Your task to perform on an android device: toggle improve location accuracy Image 0: 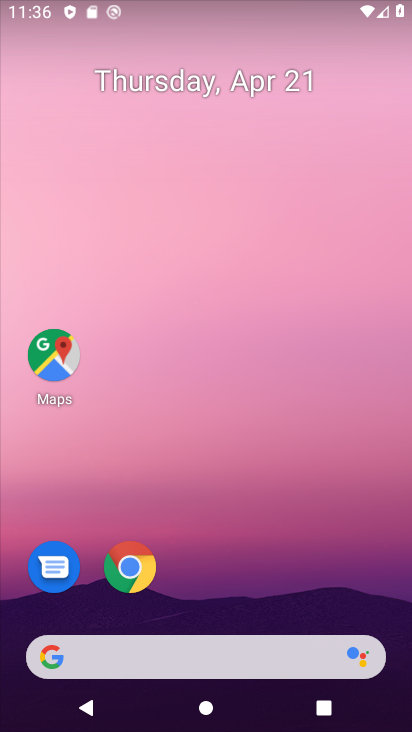
Step 0: drag from (138, 592) to (176, 236)
Your task to perform on an android device: toggle improve location accuracy Image 1: 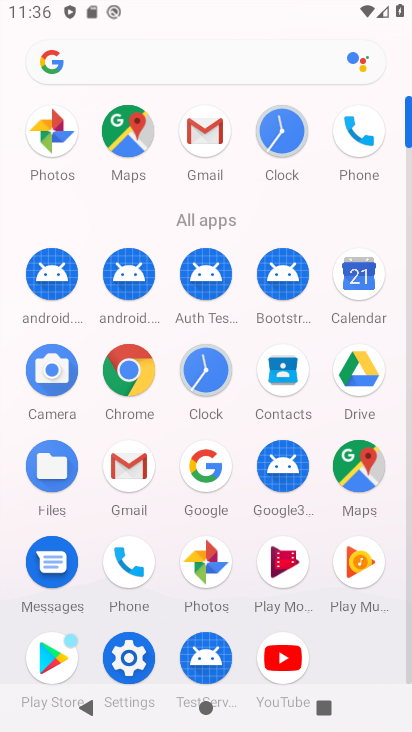
Step 1: click (129, 655)
Your task to perform on an android device: toggle improve location accuracy Image 2: 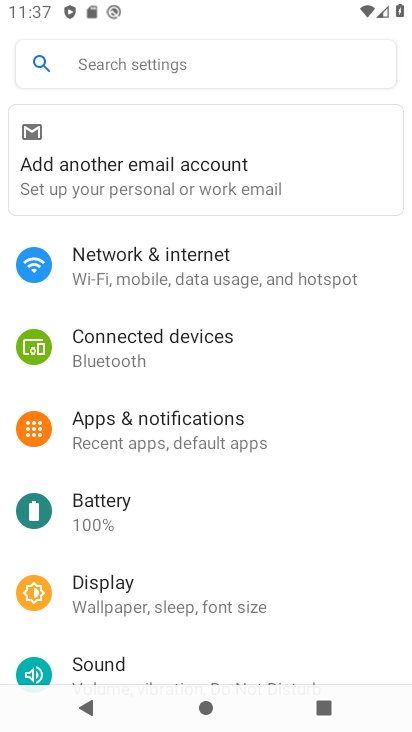
Step 2: drag from (162, 521) to (183, 194)
Your task to perform on an android device: toggle improve location accuracy Image 3: 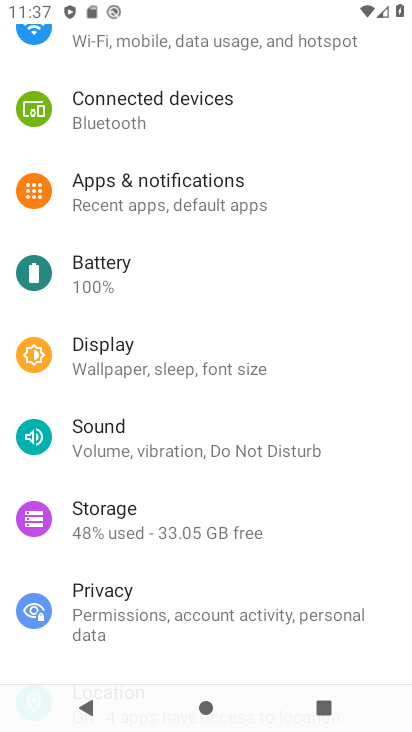
Step 3: drag from (165, 549) to (245, 288)
Your task to perform on an android device: toggle improve location accuracy Image 4: 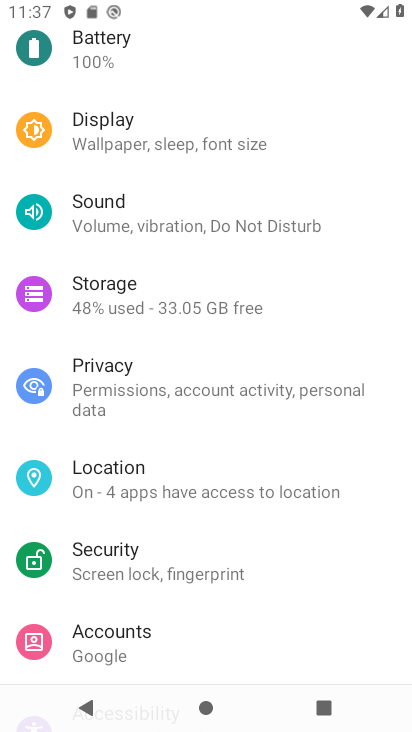
Step 4: click (135, 485)
Your task to perform on an android device: toggle improve location accuracy Image 5: 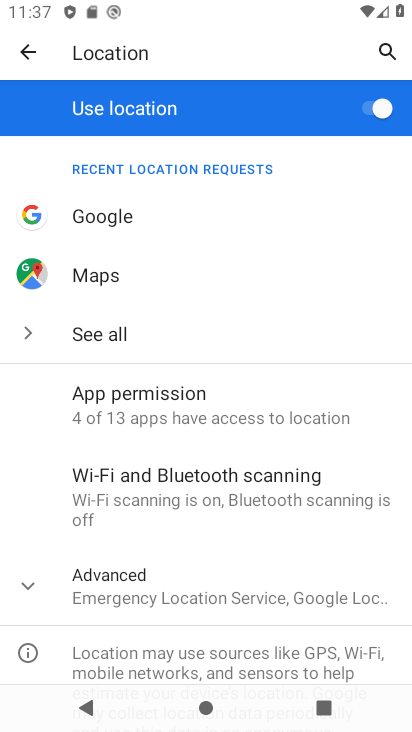
Step 5: click (43, 481)
Your task to perform on an android device: toggle improve location accuracy Image 6: 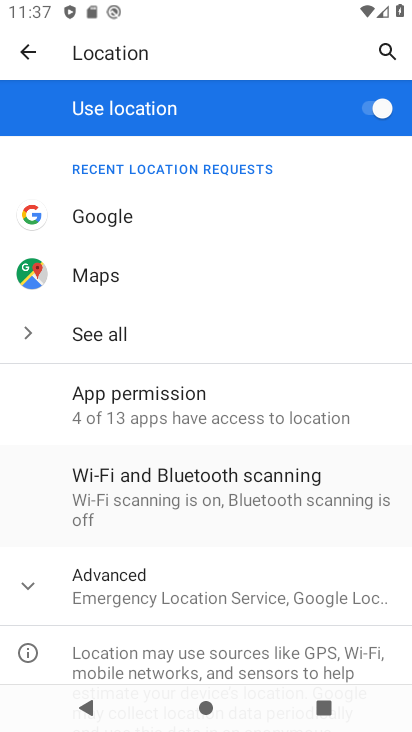
Step 6: drag from (185, 546) to (190, 399)
Your task to perform on an android device: toggle improve location accuracy Image 7: 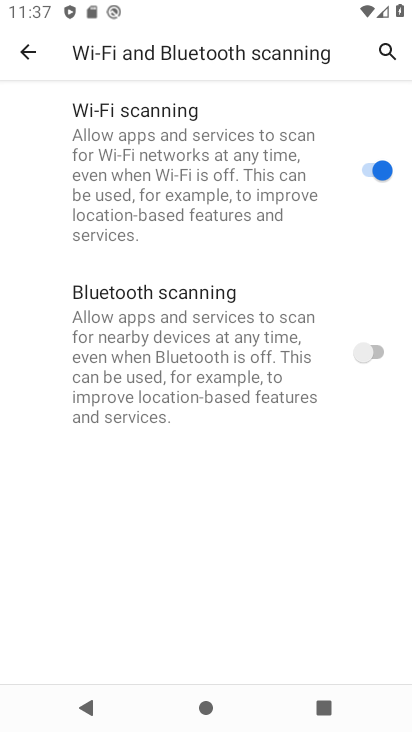
Step 7: click (35, 48)
Your task to perform on an android device: toggle improve location accuracy Image 8: 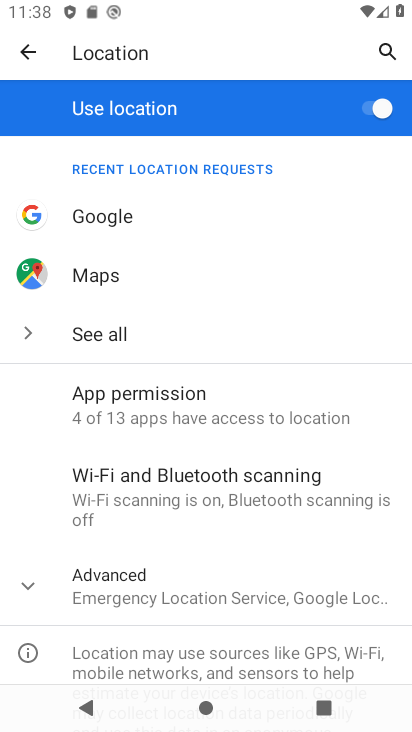
Step 8: drag from (186, 632) to (283, 268)
Your task to perform on an android device: toggle improve location accuracy Image 9: 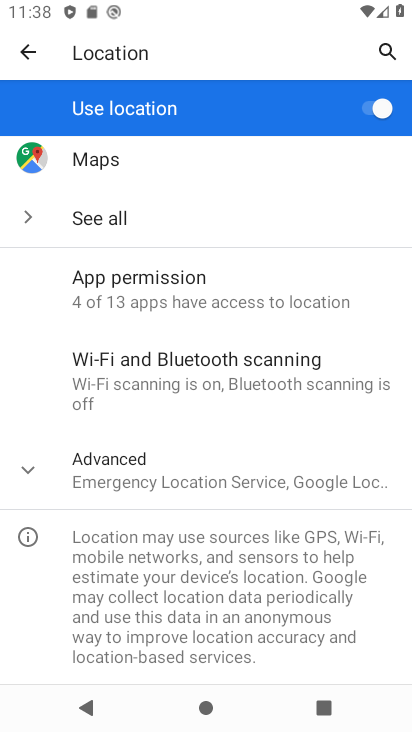
Step 9: click (27, 469)
Your task to perform on an android device: toggle improve location accuracy Image 10: 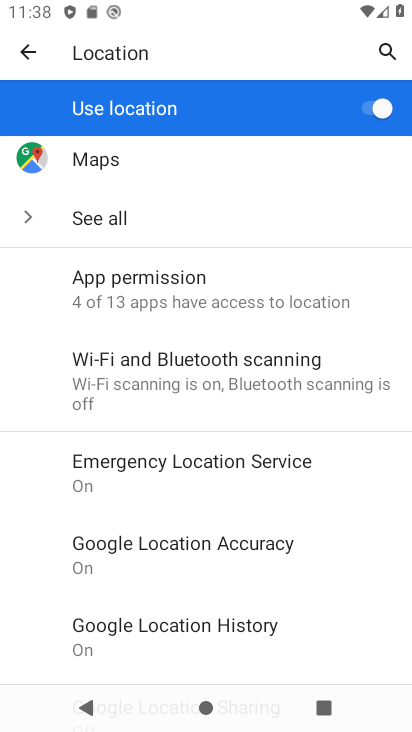
Step 10: drag from (263, 577) to (297, 364)
Your task to perform on an android device: toggle improve location accuracy Image 11: 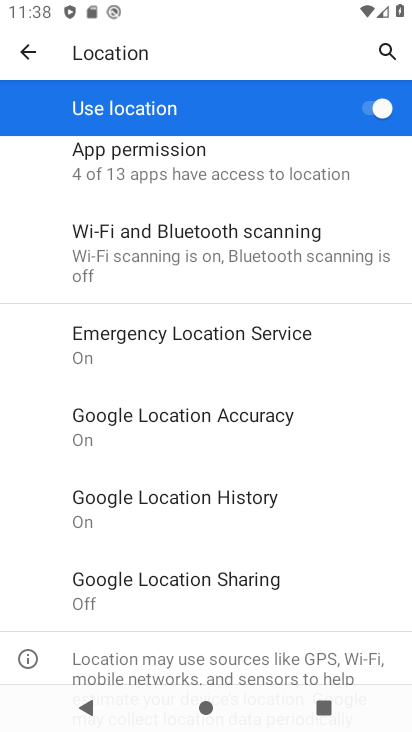
Step 11: click (235, 419)
Your task to perform on an android device: toggle improve location accuracy Image 12: 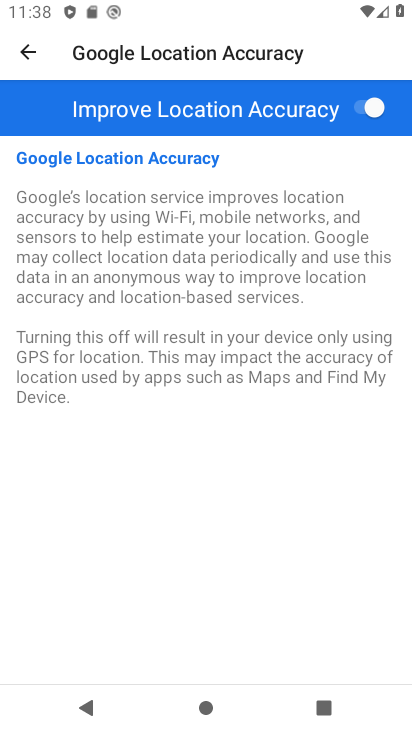
Step 12: click (354, 104)
Your task to perform on an android device: toggle improve location accuracy Image 13: 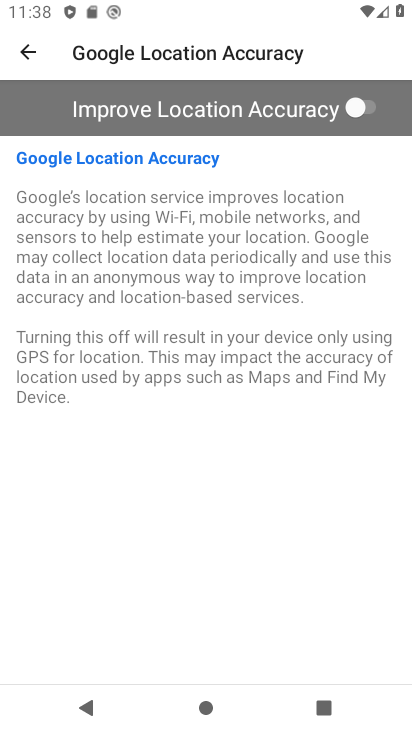
Step 13: task complete